Your task to perform on an android device: Search for sushi restaurants on Maps Image 0: 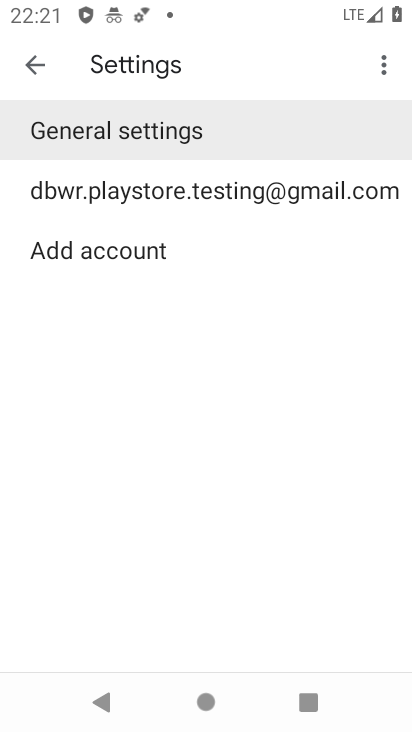
Step 0: click (29, 73)
Your task to perform on an android device: Search for sushi restaurants on Maps Image 1: 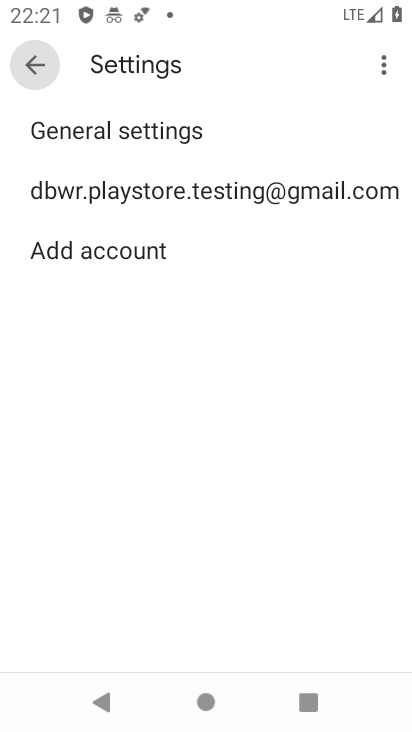
Step 1: click (36, 65)
Your task to perform on an android device: Search for sushi restaurants on Maps Image 2: 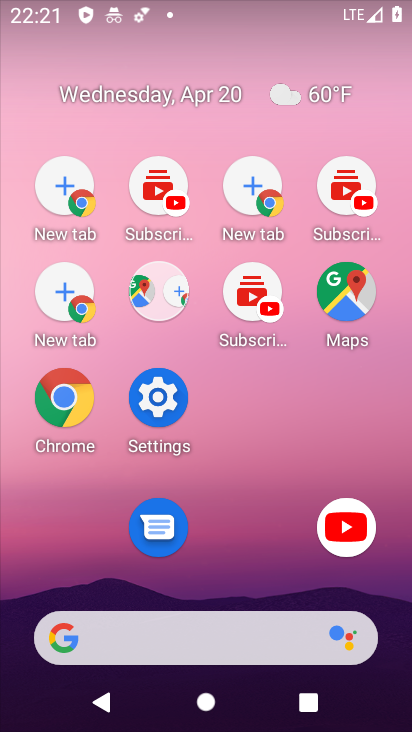
Step 2: drag from (362, 604) to (197, 90)
Your task to perform on an android device: Search for sushi restaurants on Maps Image 3: 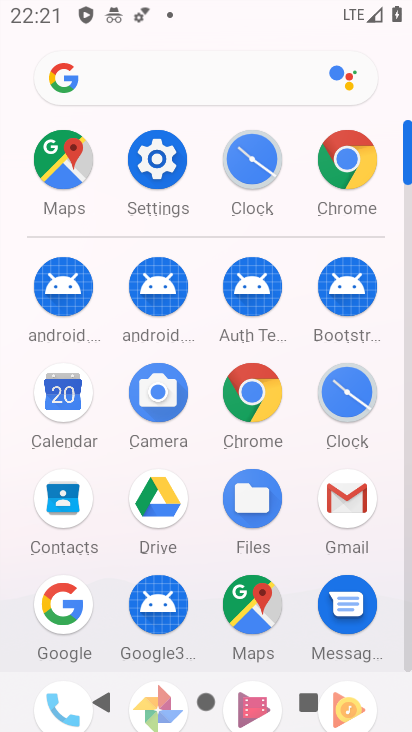
Step 3: drag from (248, 345) to (145, 148)
Your task to perform on an android device: Search for sushi restaurants on Maps Image 4: 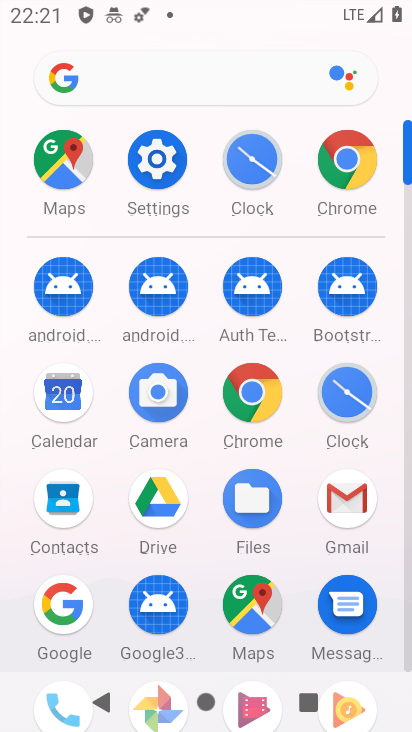
Step 4: click (258, 603)
Your task to perform on an android device: Search for sushi restaurants on Maps Image 5: 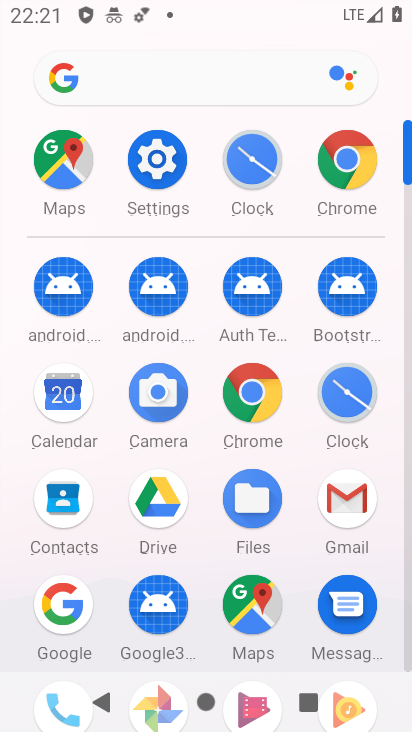
Step 5: click (260, 602)
Your task to perform on an android device: Search for sushi restaurants on Maps Image 6: 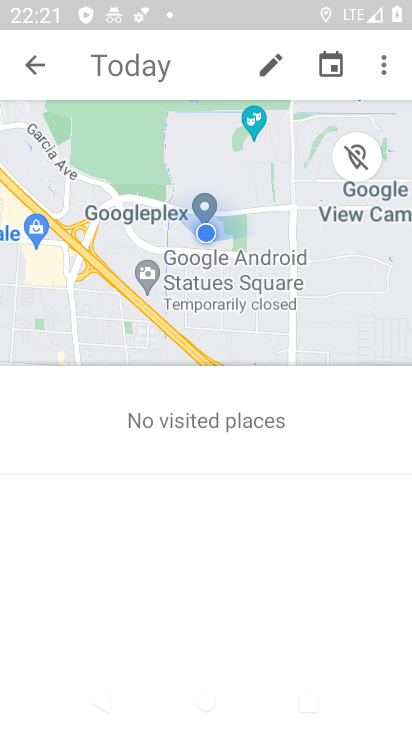
Step 6: click (107, 62)
Your task to perform on an android device: Search for sushi restaurants on Maps Image 7: 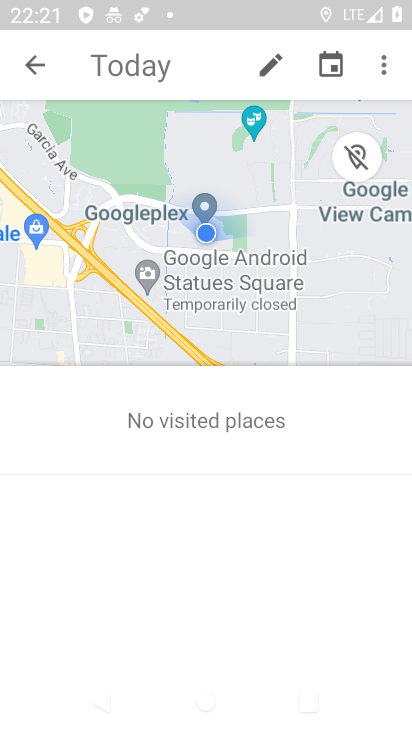
Step 7: click (101, 63)
Your task to perform on an android device: Search for sushi restaurants on Maps Image 8: 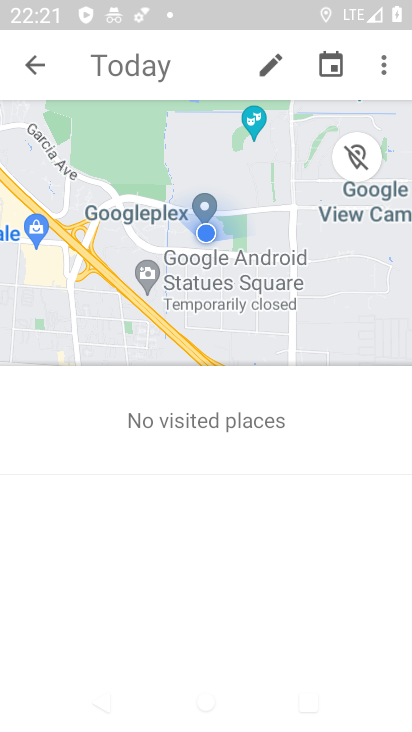
Step 8: type "sushi restaurants"
Your task to perform on an android device: Search for sushi restaurants on Maps Image 9: 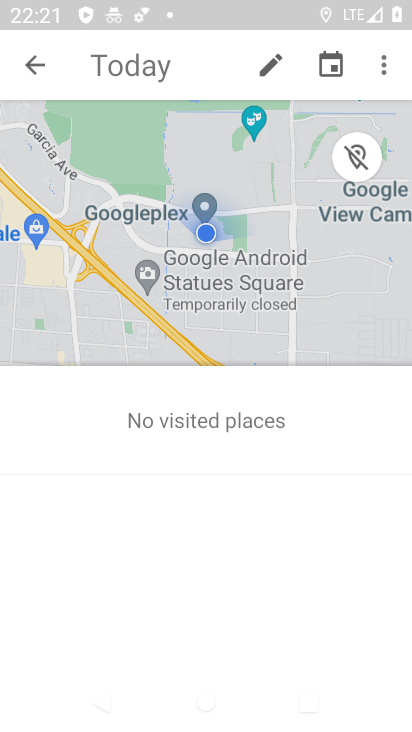
Step 9: click (42, 63)
Your task to perform on an android device: Search for sushi restaurants on Maps Image 10: 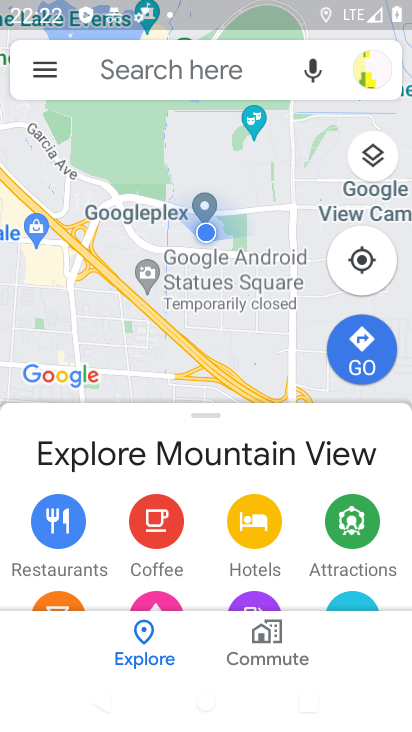
Step 10: click (114, 72)
Your task to perform on an android device: Search for sushi restaurants on Maps Image 11: 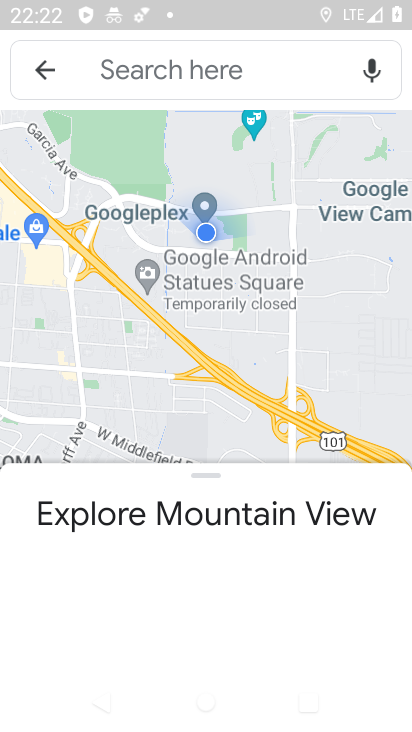
Step 11: click (114, 72)
Your task to perform on an android device: Search for sushi restaurants on Maps Image 12: 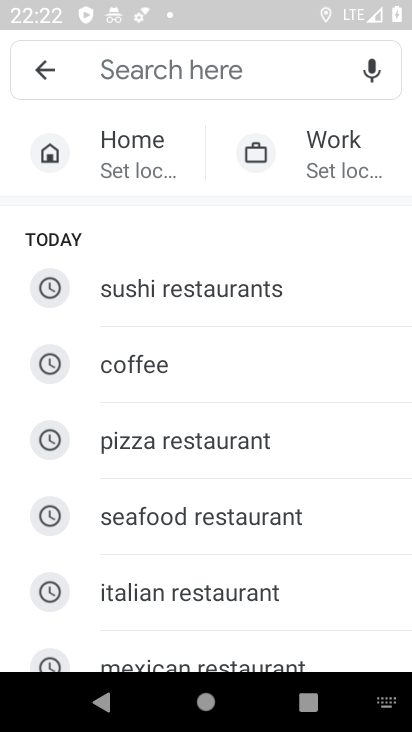
Step 12: click (171, 292)
Your task to perform on an android device: Search for sushi restaurants on Maps Image 13: 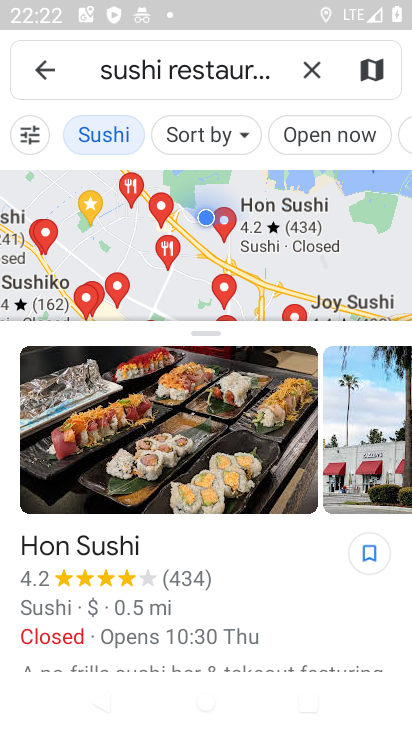
Step 13: task complete